Your task to perform on an android device: turn on airplane mode Image 0: 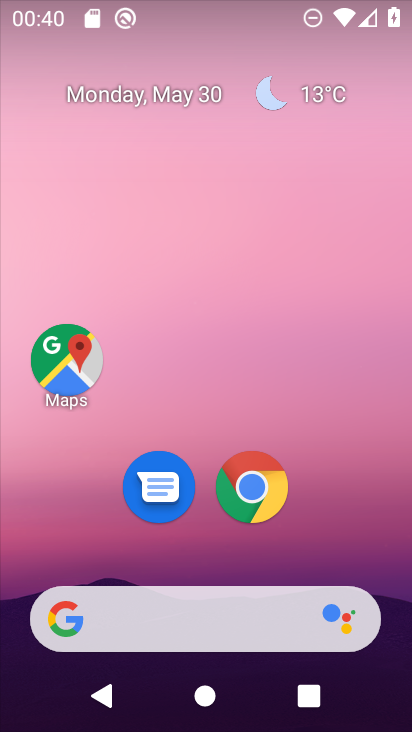
Step 0: drag from (394, 693) to (410, 88)
Your task to perform on an android device: turn on airplane mode Image 1: 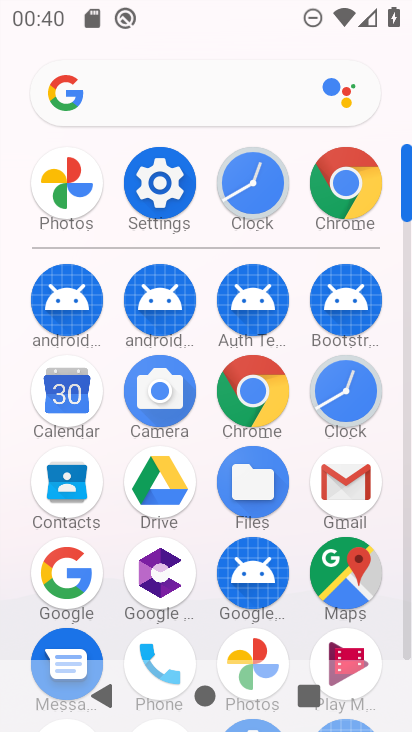
Step 1: click (134, 196)
Your task to perform on an android device: turn on airplane mode Image 2: 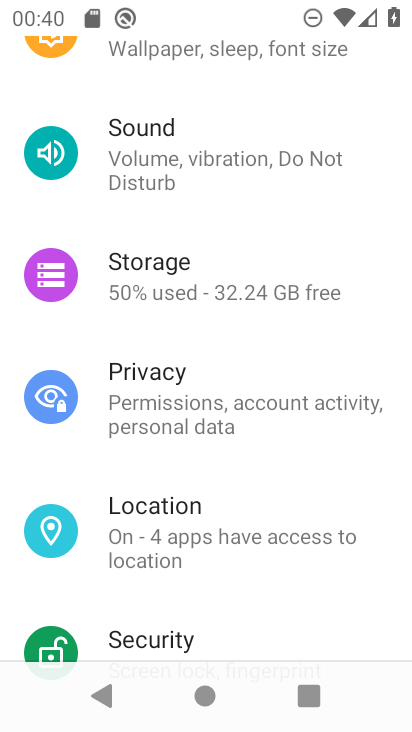
Step 2: drag from (362, 88) to (348, 657)
Your task to perform on an android device: turn on airplane mode Image 3: 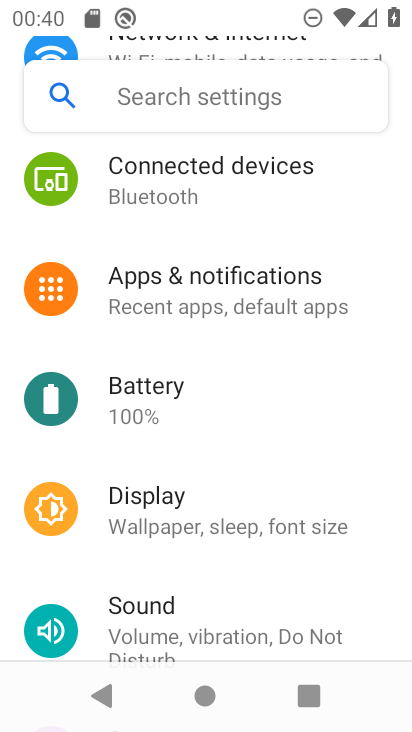
Step 3: drag from (379, 190) to (366, 565)
Your task to perform on an android device: turn on airplane mode Image 4: 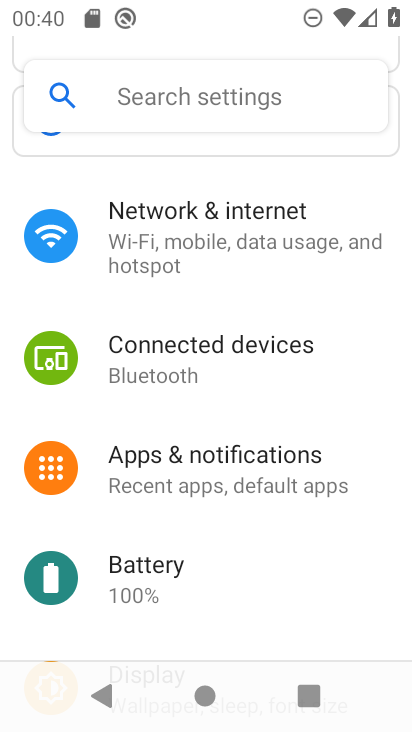
Step 4: click (201, 217)
Your task to perform on an android device: turn on airplane mode Image 5: 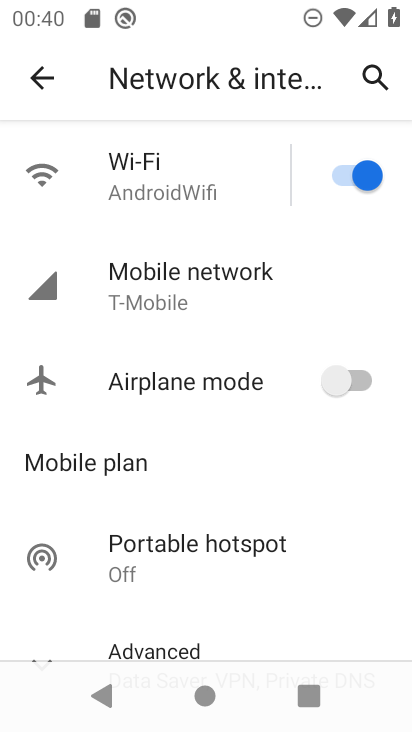
Step 5: click (346, 379)
Your task to perform on an android device: turn on airplane mode Image 6: 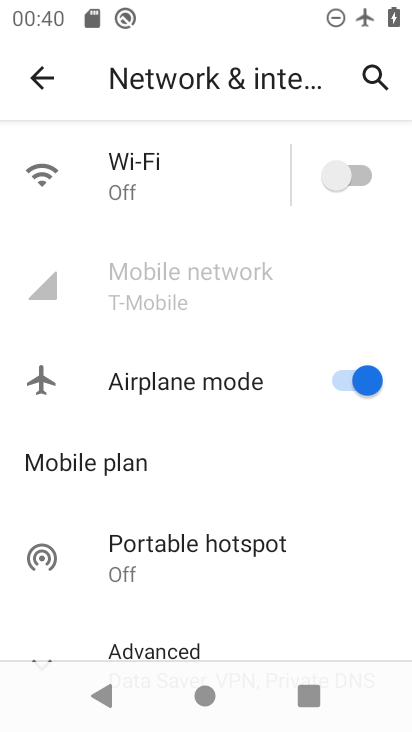
Step 6: task complete